Your task to perform on an android device: Open Chrome and go to the settings page Image 0: 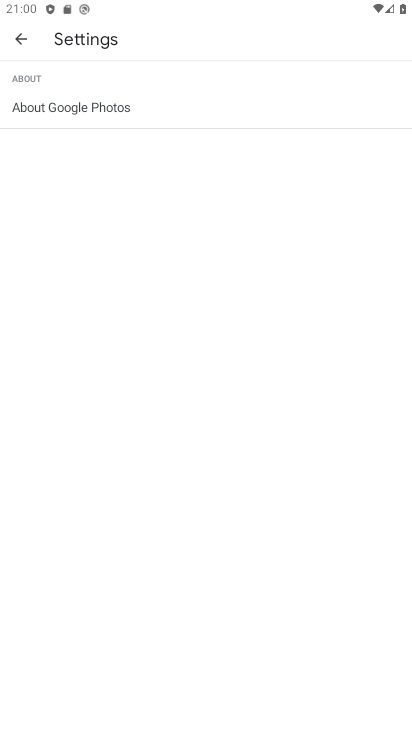
Step 0: press back button
Your task to perform on an android device: Open Chrome and go to the settings page Image 1: 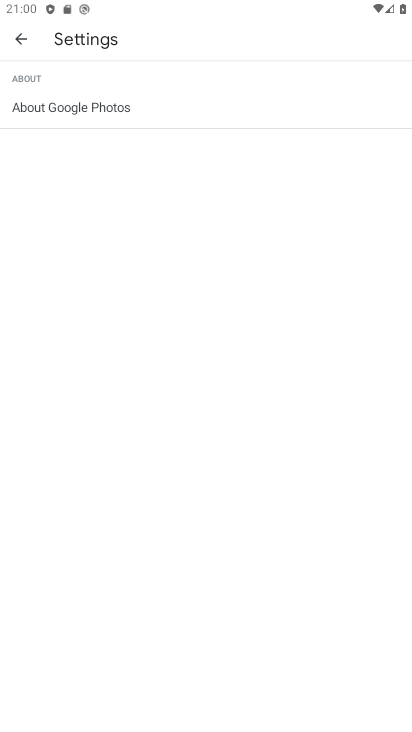
Step 1: press back button
Your task to perform on an android device: Open Chrome and go to the settings page Image 2: 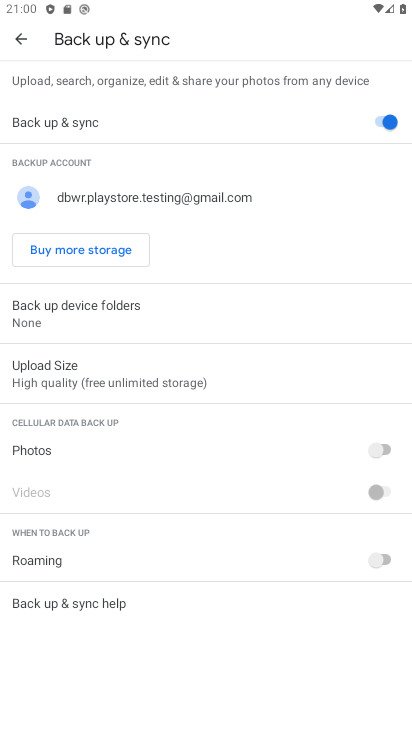
Step 2: press back button
Your task to perform on an android device: Open Chrome and go to the settings page Image 3: 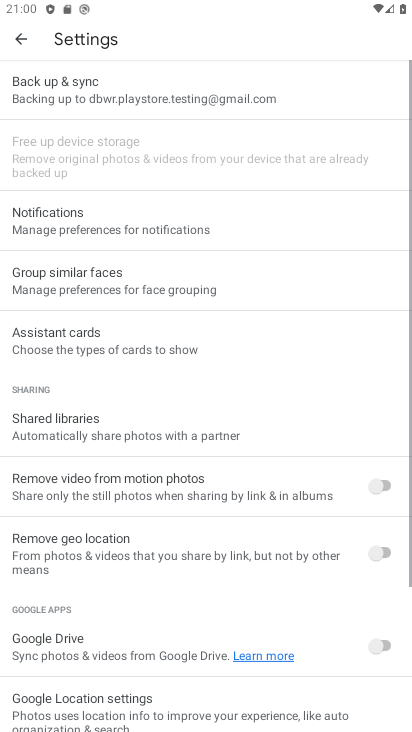
Step 3: press back button
Your task to perform on an android device: Open Chrome and go to the settings page Image 4: 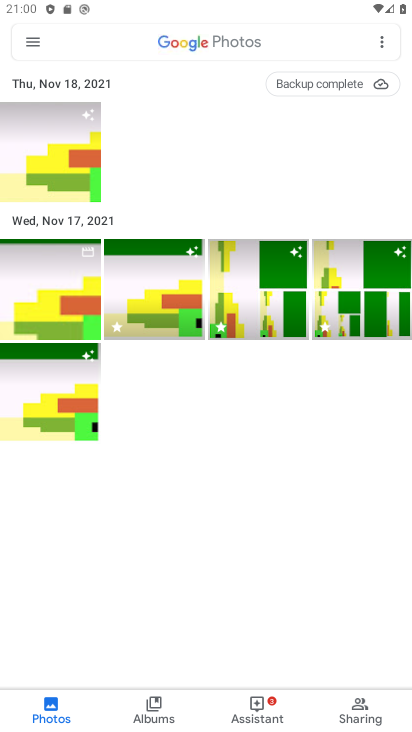
Step 4: press back button
Your task to perform on an android device: Open Chrome and go to the settings page Image 5: 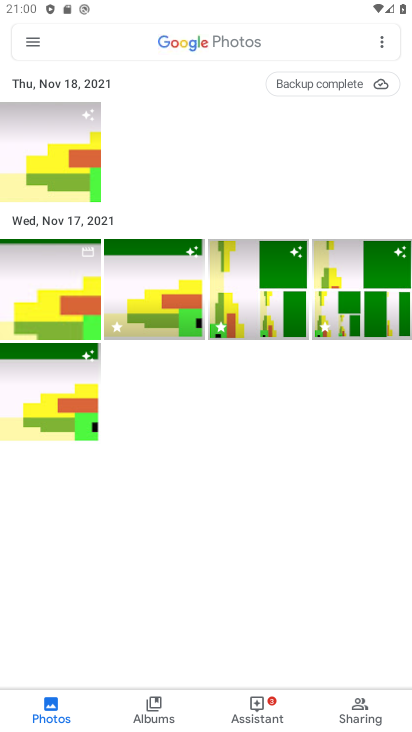
Step 5: press back button
Your task to perform on an android device: Open Chrome and go to the settings page Image 6: 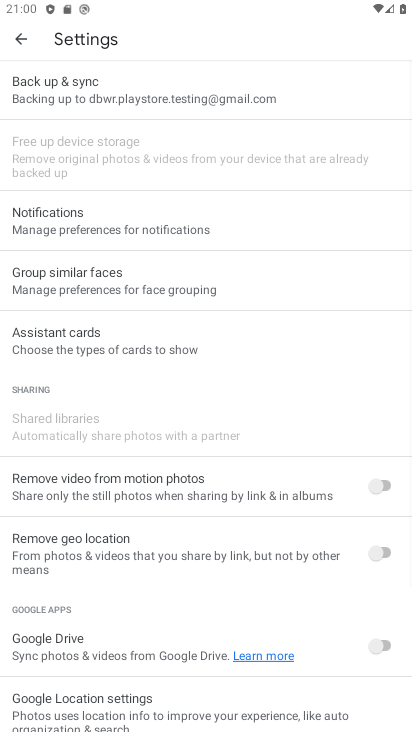
Step 6: press back button
Your task to perform on an android device: Open Chrome and go to the settings page Image 7: 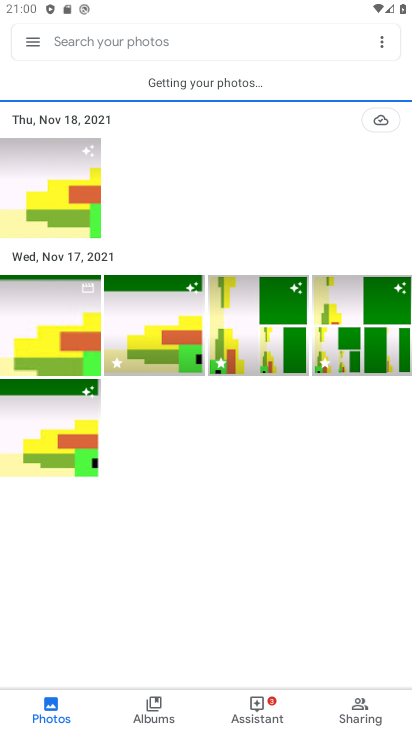
Step 7: press home button
Your task to perform on an android device: Open Chrome and go to the settings page Image 8: 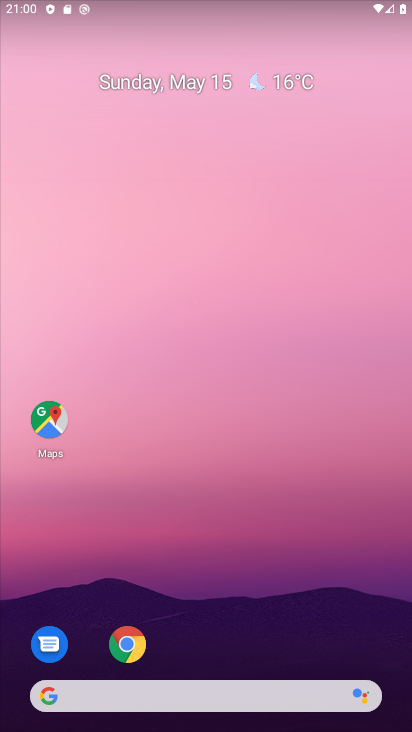
Step 8: click (132, 638)
Your task to perform on an android device: Open Chrome and go to the settings page Image 9: 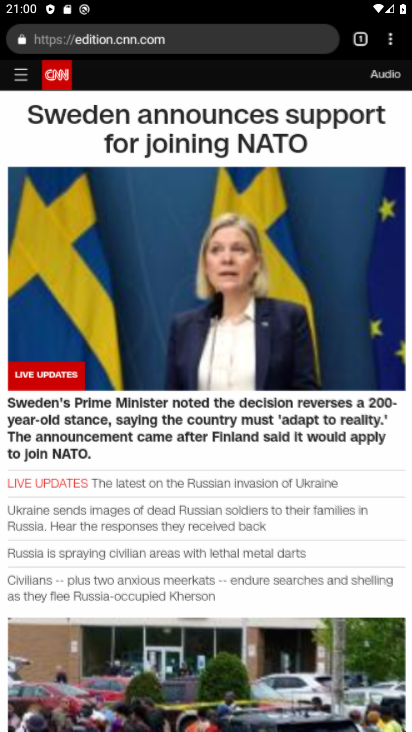
Step 9: task complete